Your task to perform on an android device: snooze an email in the gmail app Image 0: 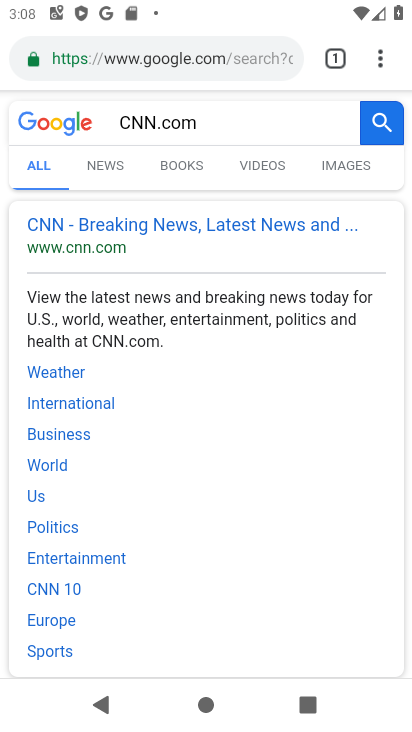
Step 0: press home button
Your task to perform on an android device: snooze an email in the gmail app Image 1: 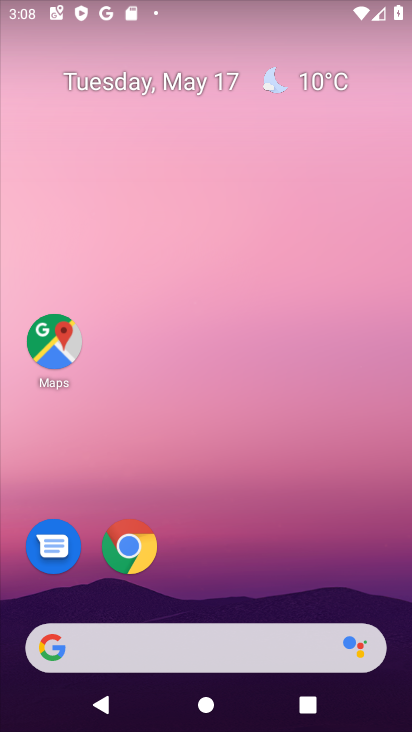
Step 1: drag from (243, 550) to (375, 1)
Your task to perform on an android device: snooze an email in the gmail app Image 2: 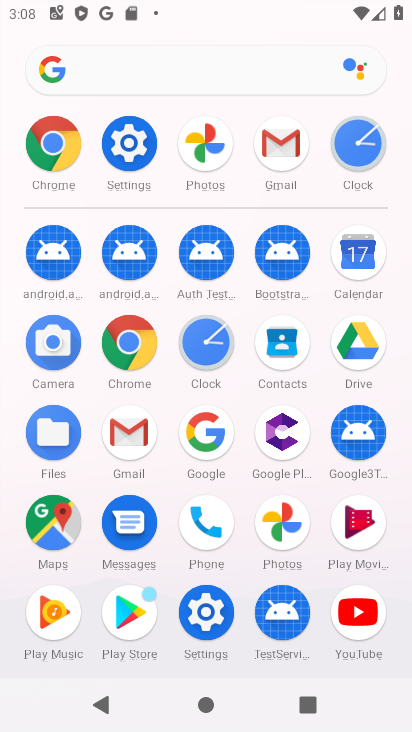
Step 2: click (135, 431)
Your task to perform on an android device: snooze an email in the gmail app Image 3: 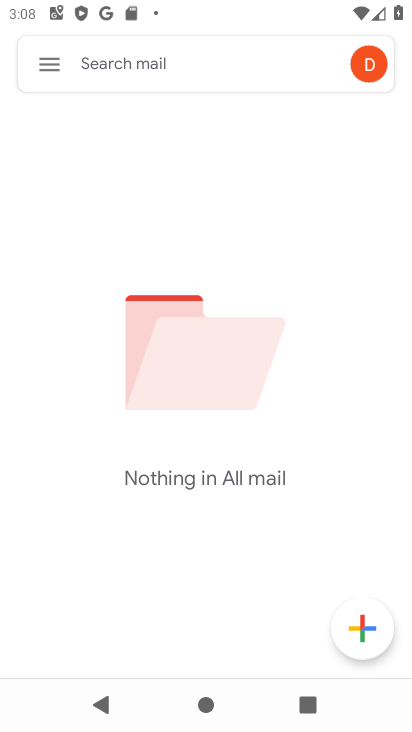
Step 3: task complete